Your task to perform on an android device: toggle sleep mode Image 0: 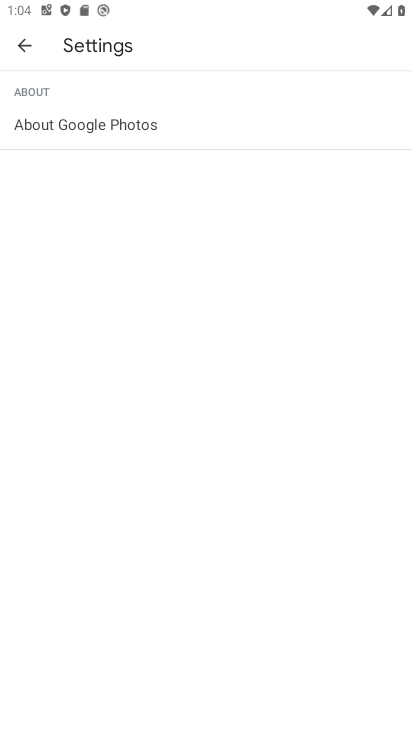
Step 0: press home button
Your task to perform on an android device: toggle sleep mode Image 1: 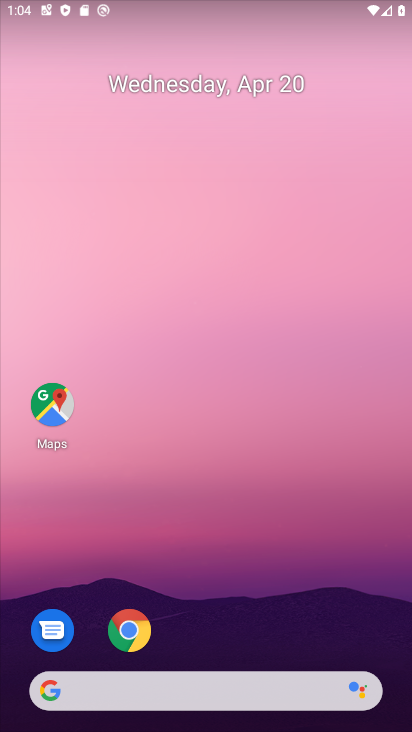
Step 1: drag from (348, 515) to (335, 66)
Your task to perform on an android device: toggle sleep mode Image 2: 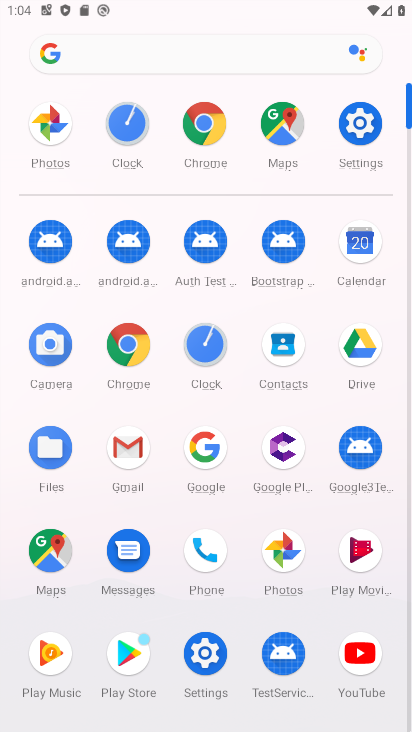
Step 2: click (370, 132)
Your task to perform on an android device: toggle sleep mode Image 3: 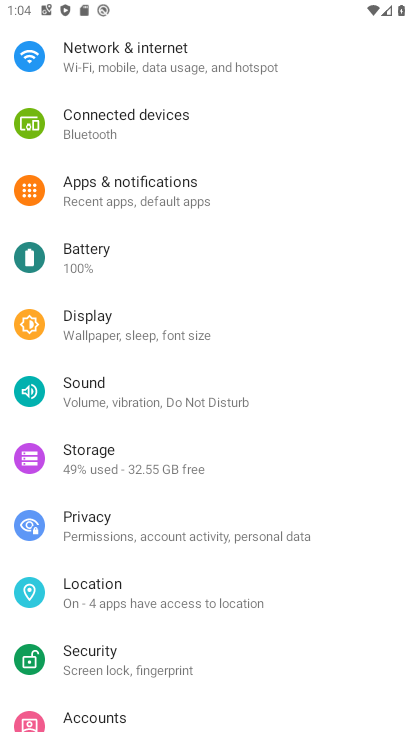
Step 3: drag from (292, 205) to (296, 555)
Your task to perform on an android device: toggle sleep mode Image 4: 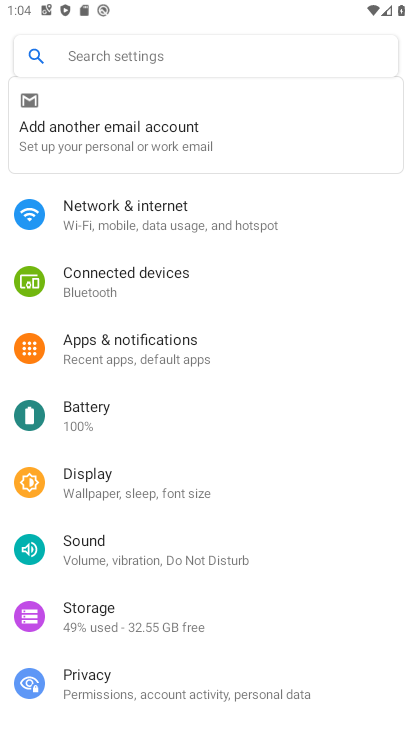
Step 4: click (137, 48)
Your task to perform on an android device: toggle sleep mode Image 5: 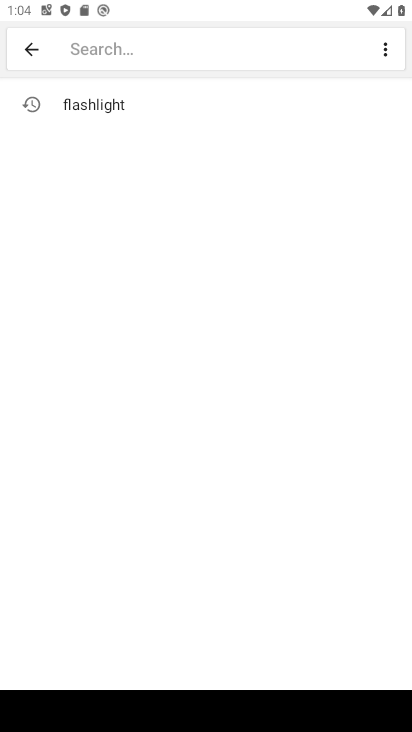
Step 5: type "sleep mode"
Your task to perform on an android device: toggle sleep mode Image 6: 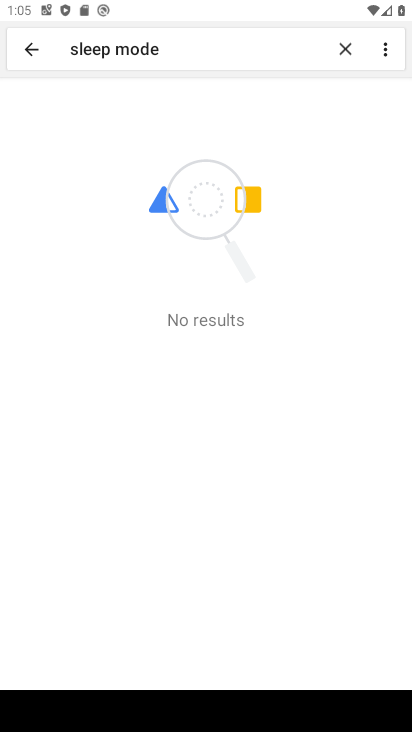
Step 6: task complete